Your task to perform on an android device: turn off wifi Image 0: 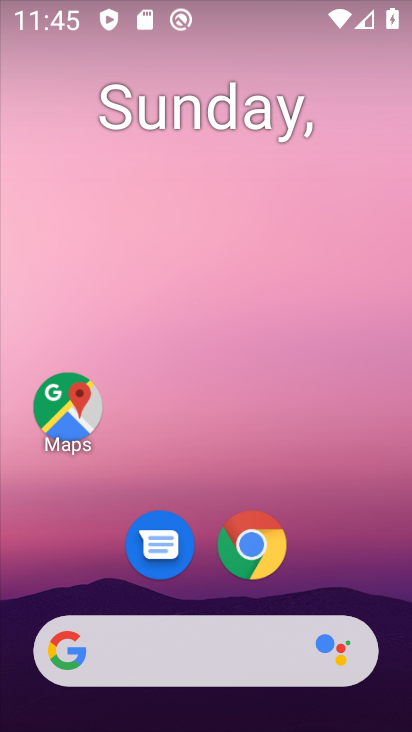
Step 0: drag from (373, 587) to (399, 207)
Your task to perform on an android device: turn off wifi Image 1: 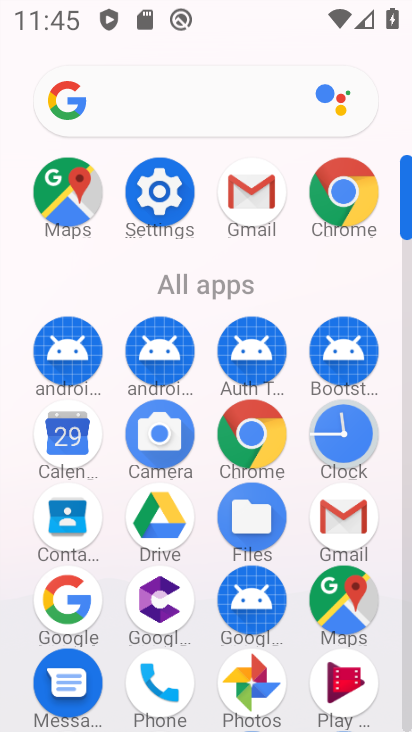
Step 1: click (169, 182)
Your task to perform on an android device: turn off wifi Image 2: 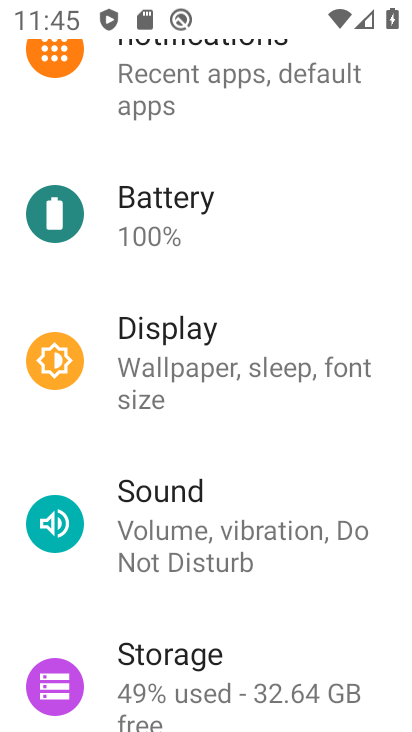
Step 2: drag from (361, 159) to (361, 316)
Your task to perform on an android device: turn off wifi Image 3: 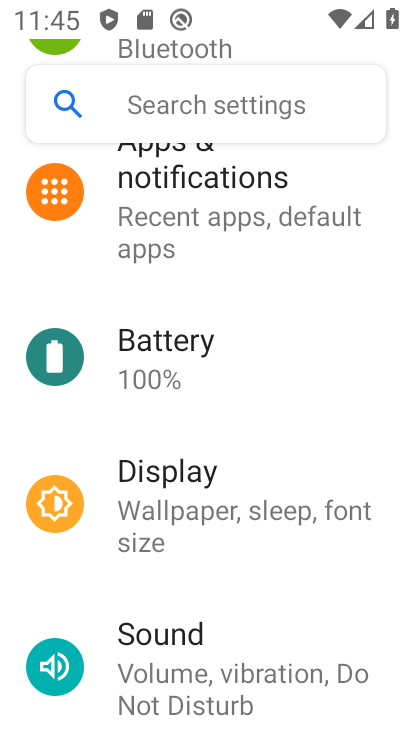
Step 3: drag from (372, 169) to (368, 323)
Your task to perform on an android device: turn off wifi Image 4: 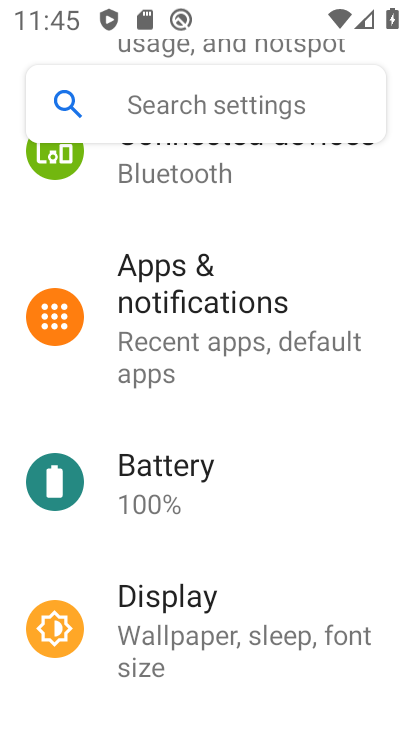
Step 4: drag from (360, 176) to (365, 284)
Your task to perform on an android device: turn off wifi Image 5: 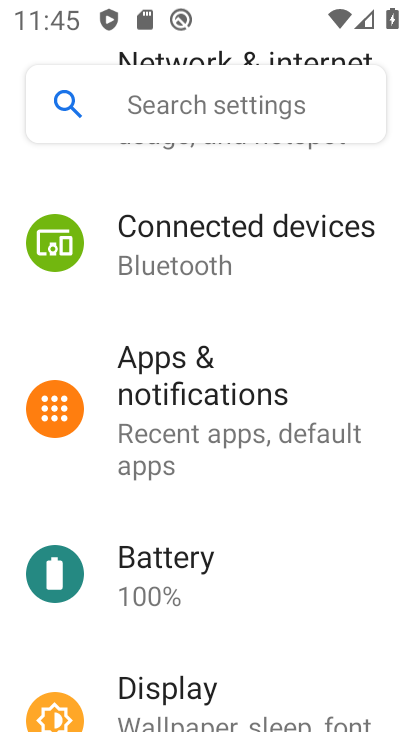
Step 5: drag from (368, 173) to (371, 317)
Your task to perform on an android device: turn off wifi Image 6: 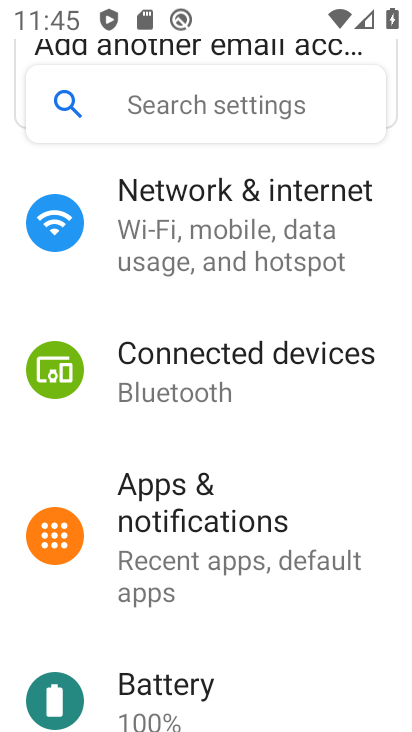
Step 6: drag from (387, 168) to (372, 421)
Your task to perform on an android device: turn off wifi Image 7: 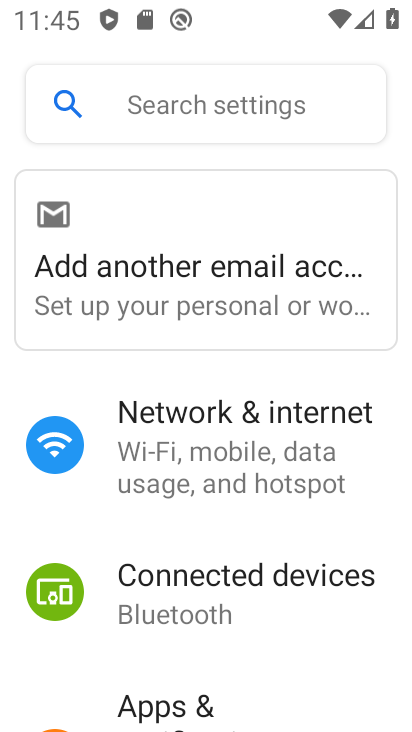
Step 7: drag from (378, 191) to (363, 423)
Your task to perform on an android device: turn off wifi Image 8: 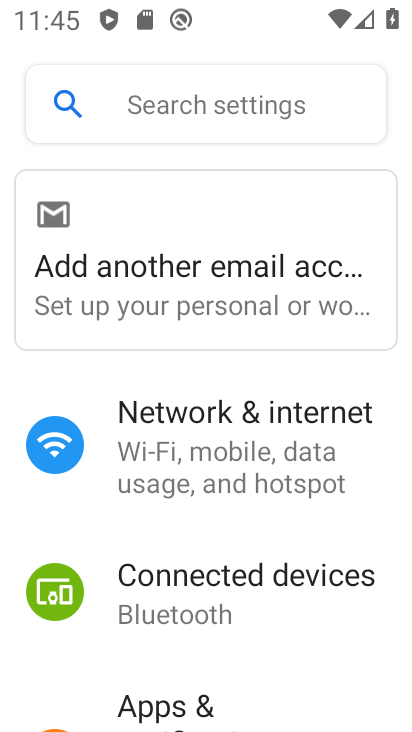
Step 8: click (325, 456)
Your task to perform on an android device: turn off wifi Image 9: 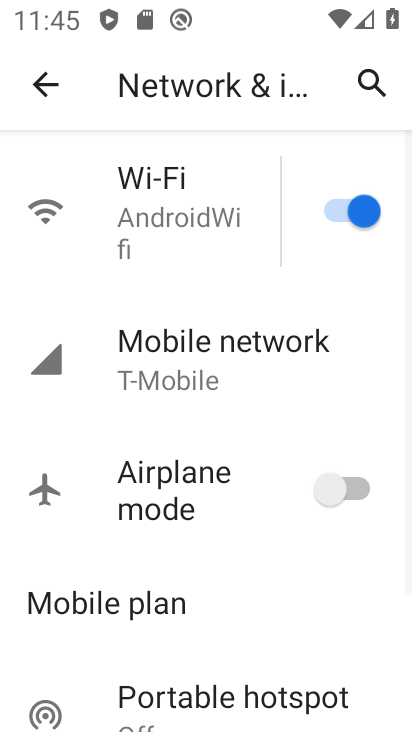
Step 9: click (368, 204)
Your task to perform on an android device: turn off wifi Image 10: 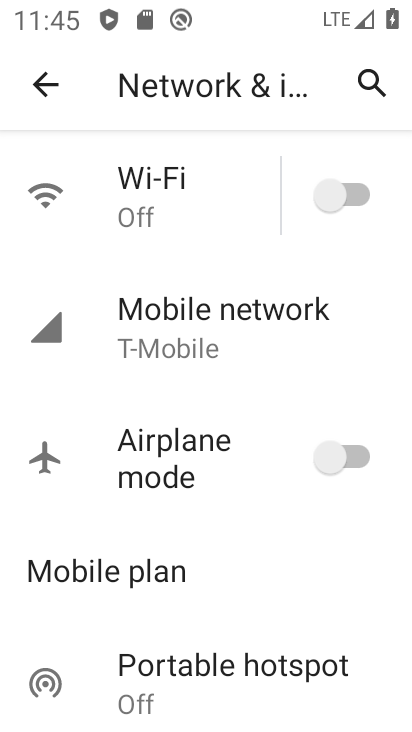
Step 10: task complete